Your task to perform on an android device: Show the shopping cart on target. Search for lenovo thinkpad on target, select the first entry, and add it to the cart. Image 0: 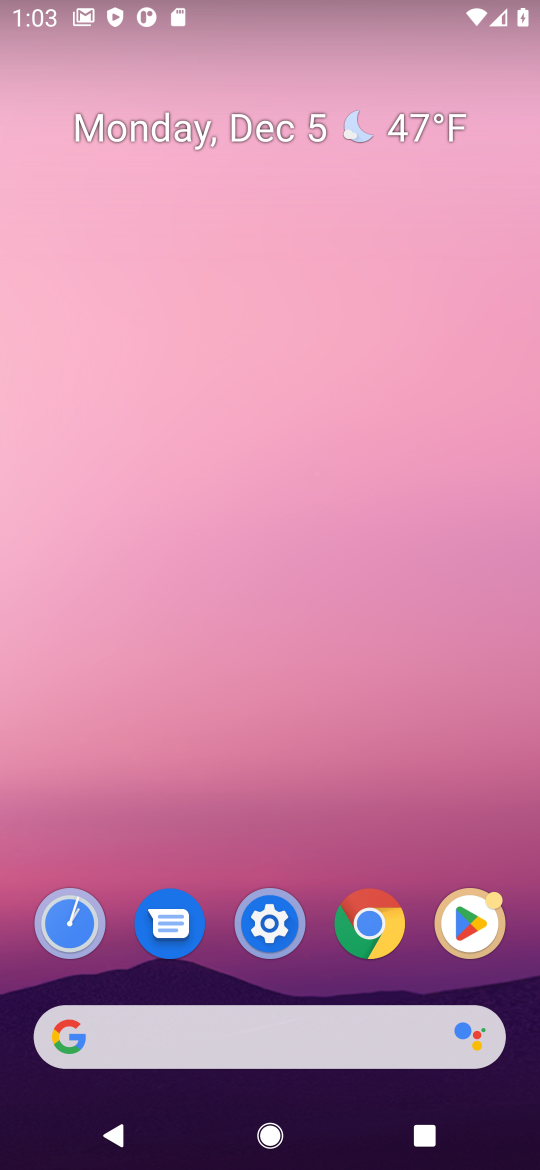
Step 0: click (253, 1048)
Your task to perform on an android device: Show the shopping cart on target. Search for lenovo thinkpad on target, select the first entry, and add it to the cart. Image 1: 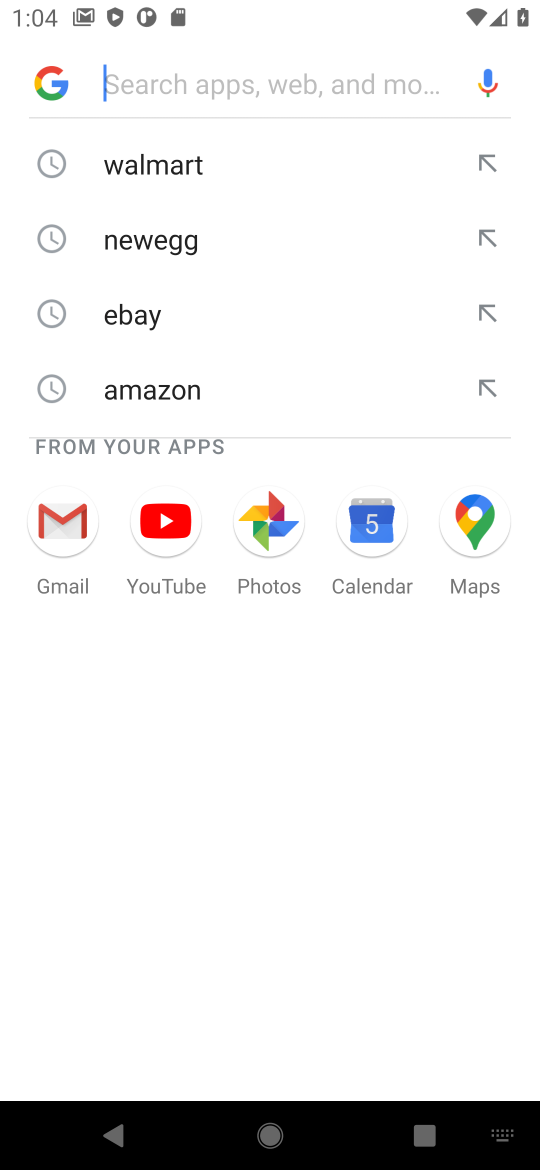
Step 1: type "target"
Your task to perform on an android device: Show the shopping cart on target. Search for lenovo thinkpad on target, select the first entry, and add it to the cart. Image 2: 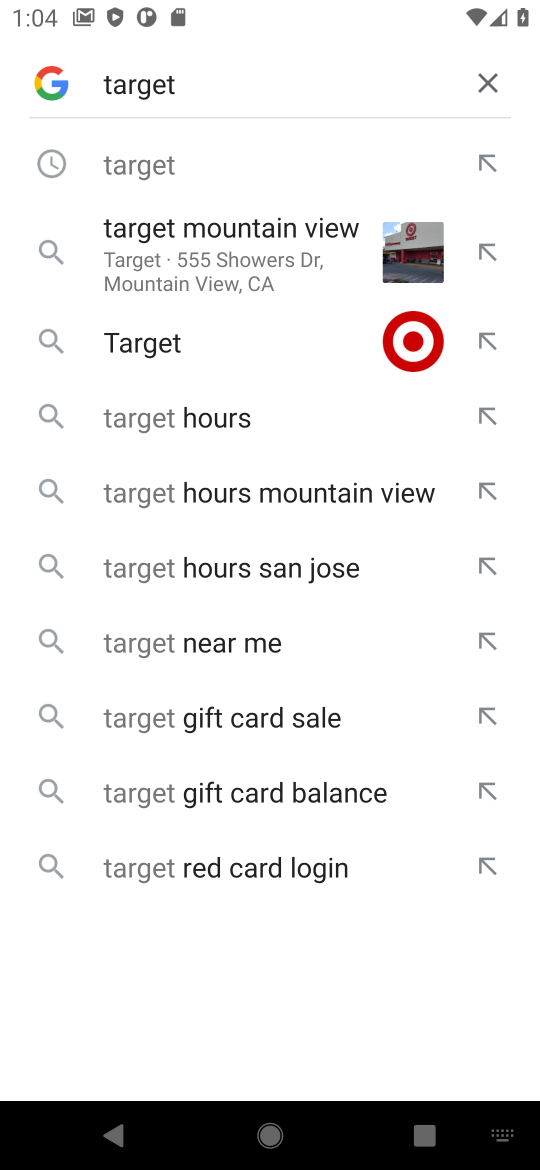
Step 2: click (168, 339)
Your task to perform on an android device: Show the shopping cart on target. Search for lenovo thinkpad on target, select the first entry, and add it to the cart. Image 3: 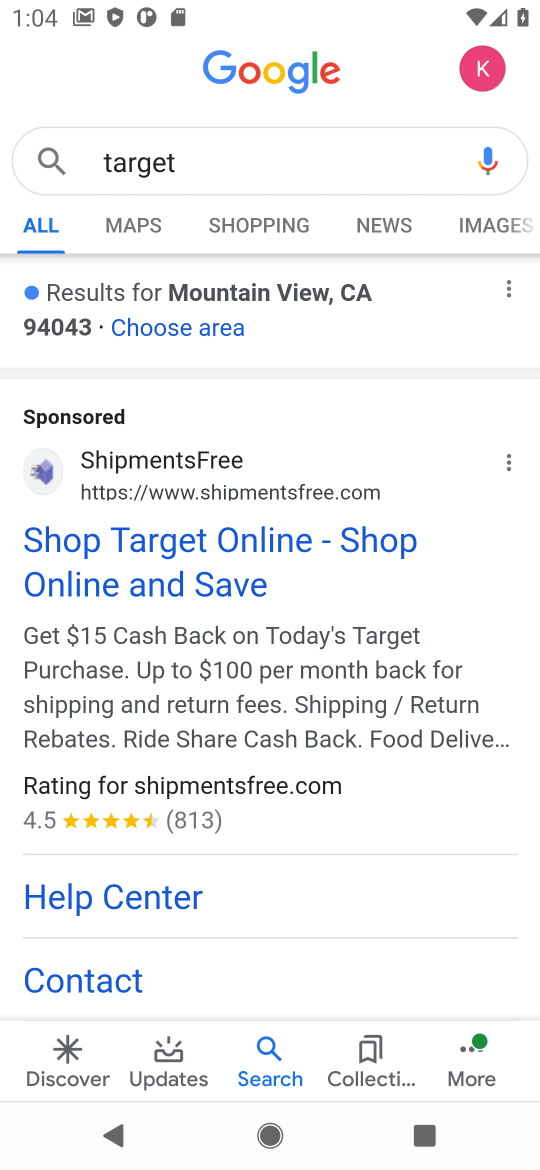
Step 3: click (257, 567)
Your task to perform on an android device: Show the shopping cart on target. Search for lenovo thinkpad on target, select the first entry, and add it to the cart. Image 4: 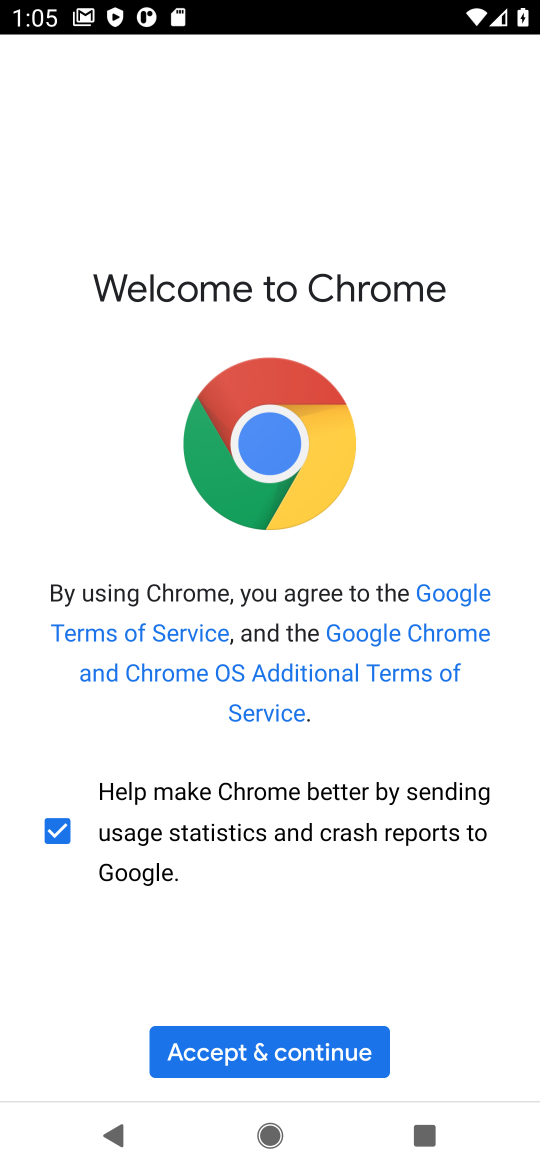
Step 4: task complete